Your task to perform on an android device: Show me popular games on the Play Store Image 0: 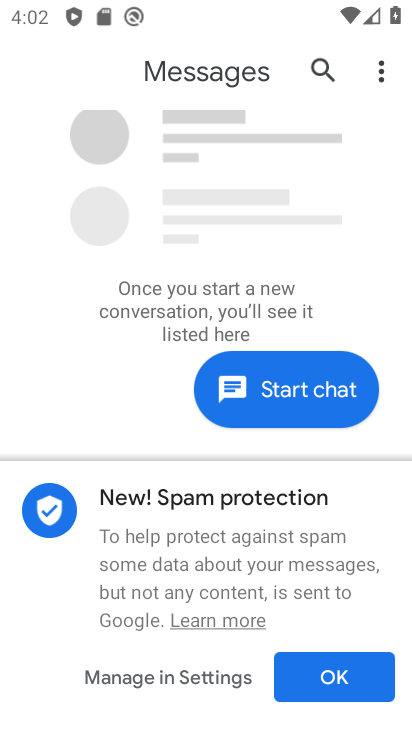
Step 0: press home button
Your task to perform on an android device: Show me popular games on the Play Store Image 1: 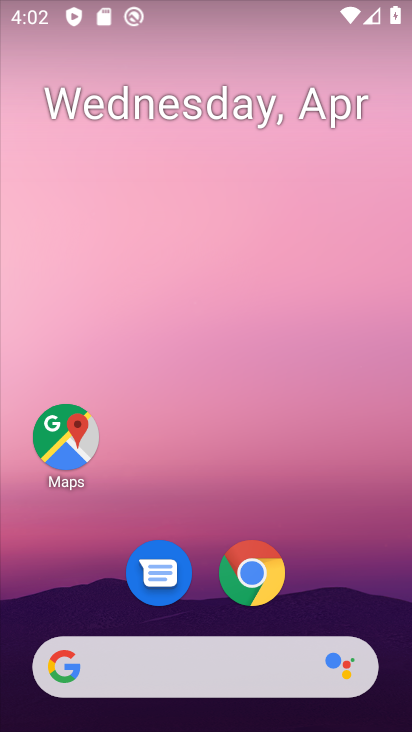
Step 1: drag from (377, 616) to (395, 67)
Your task to perform on an android device: Show me popular games on the Play Store Image 2: 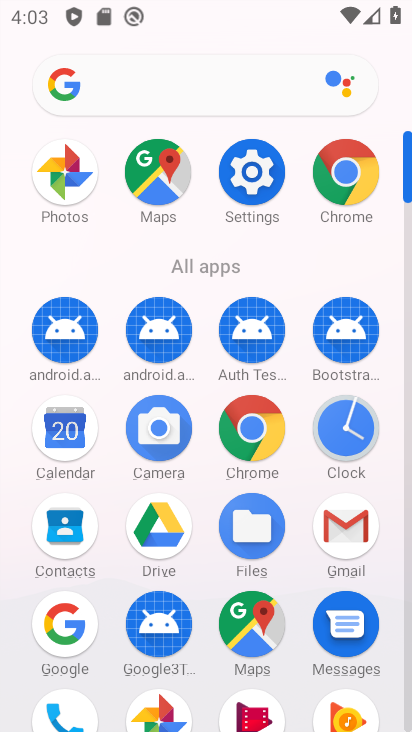
Step 2: click (408, 500)
Your task to perform on an android device: Show me popular games on the Play Store Image 3: 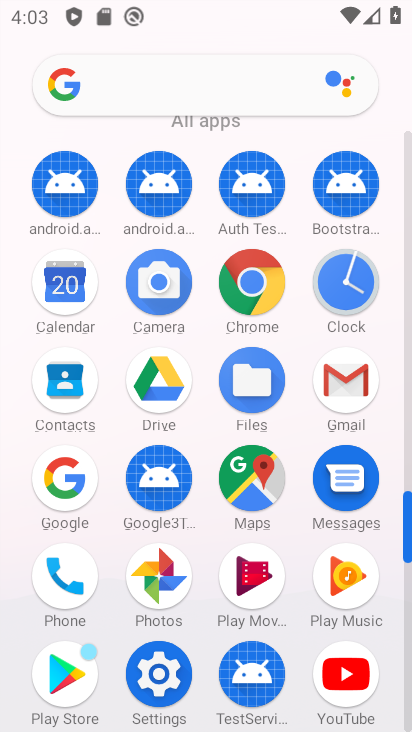
Step 3: click (54, 680)
Your task to perform on an android device: Show me popular games on the Play Store Image 4: 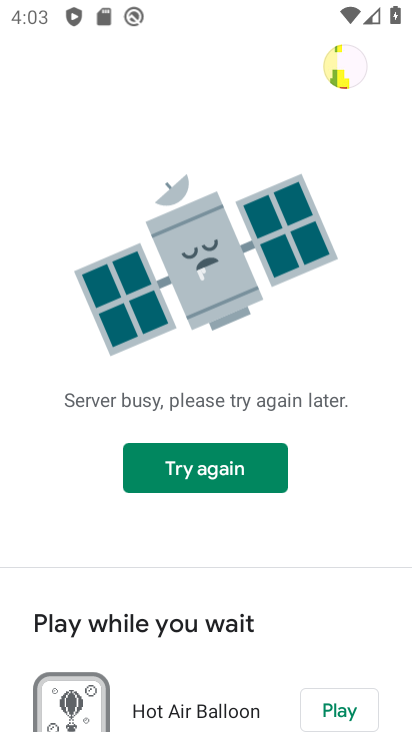
Step 4: click (213, 482)
Your task to perform on an android device: Show me popular games on the Play Store Image 5: 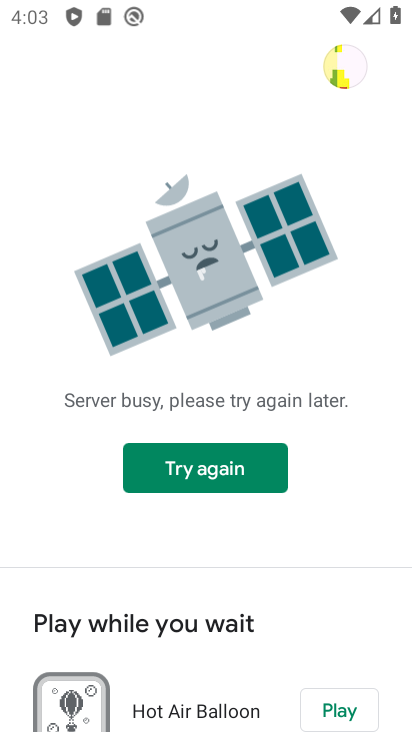
Step 5: task complete